Your task to perform on an android device: turn off improve location accuracy Image 0: 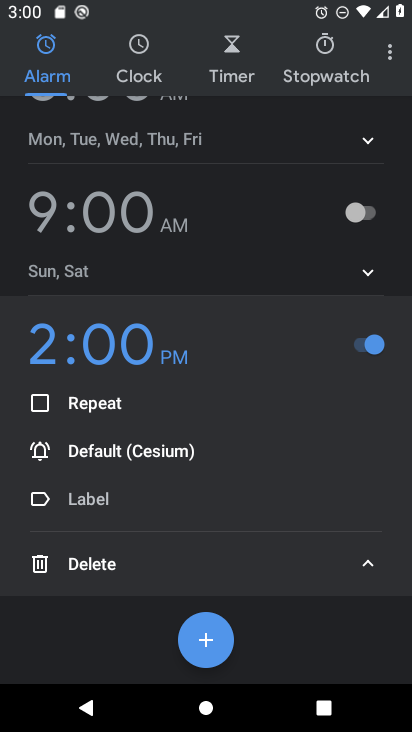
Step 0: press home button
Your task to perform on an android device: turn off improve location accuracy Image 1: 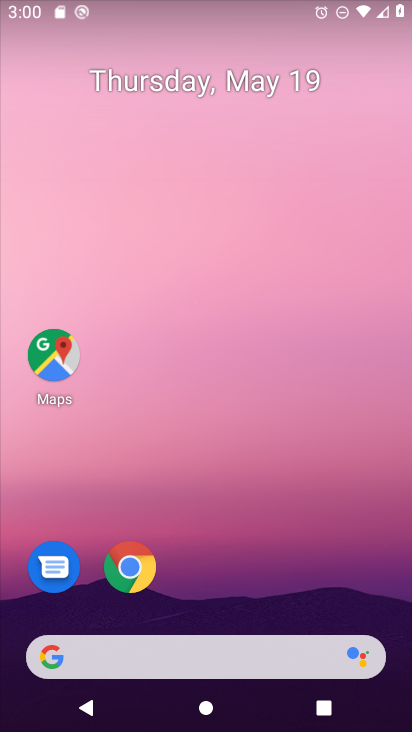
Step 1: drag from (299, 547) to (273, 72)
Your task to perform on an android device: turn off improve location accuracy Image 2: 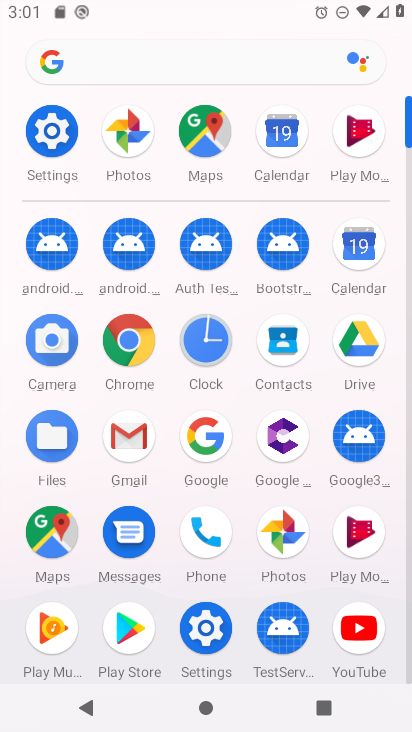
Step 2: click (58, 125)
Your task to perform on an android device: turn off improve location accuracy Image 3: 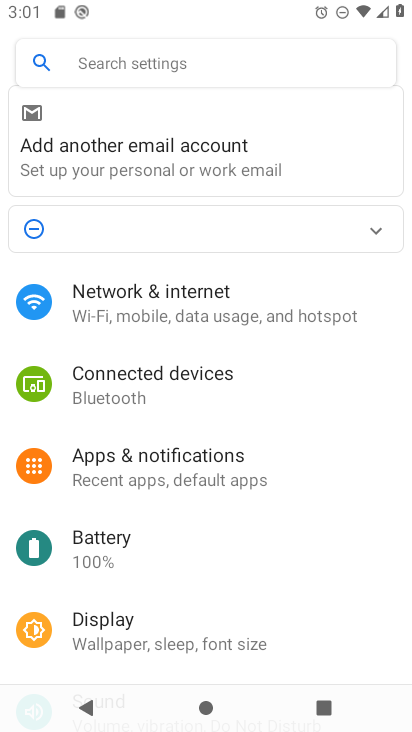
Step 3: drag from (252, 564) to (221, 284)
Your task to perform on an android device: turn off improve location accuracy Image 4: 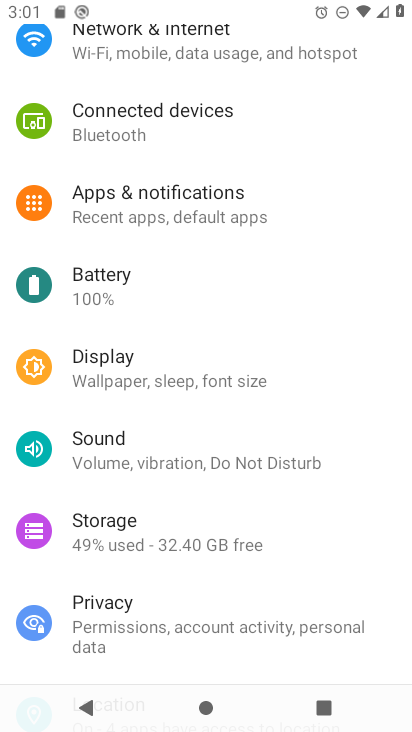
Step 4: drag from (213, 440) to (213, 58)
Your task to perform on an android device: turn off improve location accuracy Image 5: 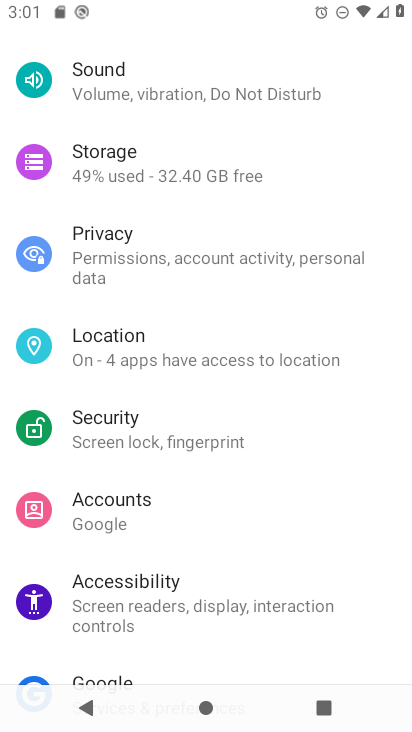
Step 5: click (213, 353)
Your task to perform on an android device: turn off improve location accuracy Image 6: 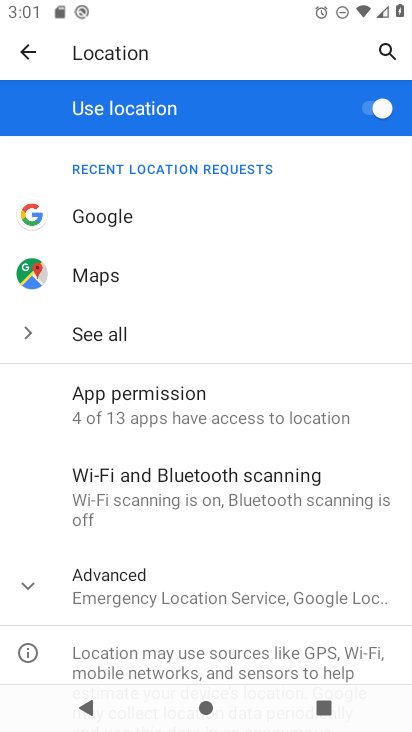
Step 6: click (23, 586)
Your task to perform on an android device: turn off improve location accuracy Image 7: 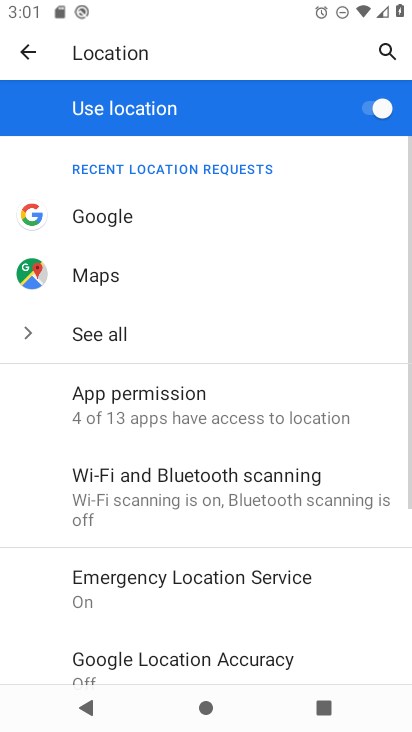
Step 7: task complete